Your task to perform on an android device: change the clock display to show seconds Image 0: 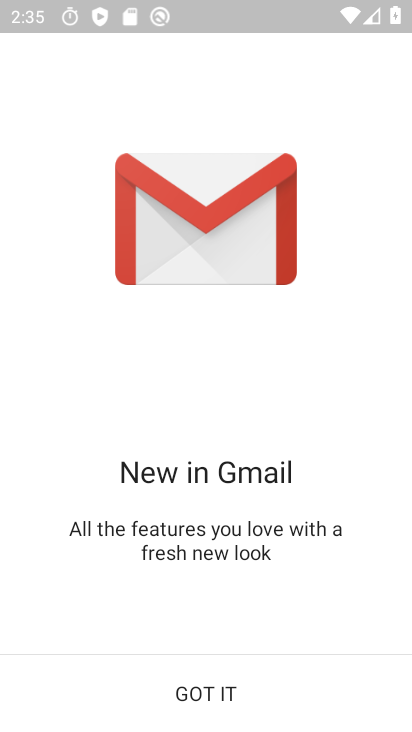
Step 0: press home button
Your task to perform on an android device: change the clock display to show seconds Image 1: 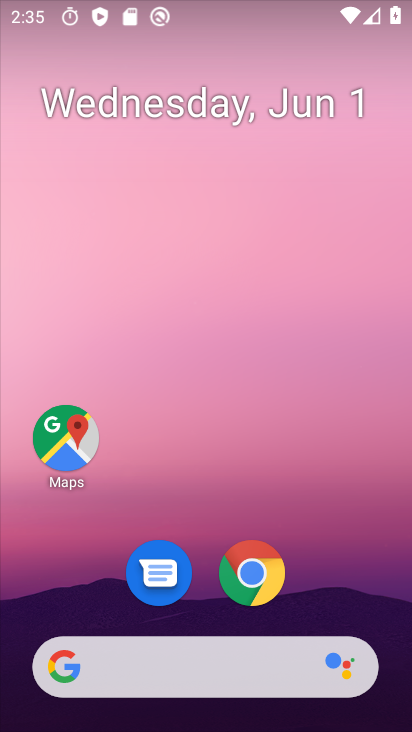
Step 1: drag from (203, 608) to (210, 271)
Your task to perform on an android device: change the clock display to show seconds Image 2: 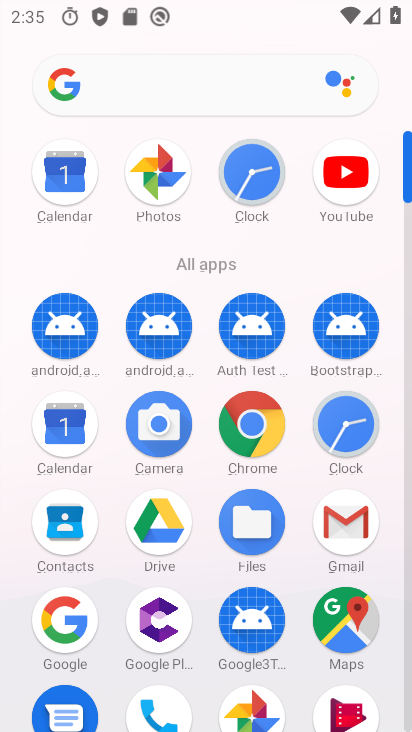
Step 2: drag from (206, 584) to (240, 398)
Your task to perform on an android device: change the clock display to show seconds Image 3: 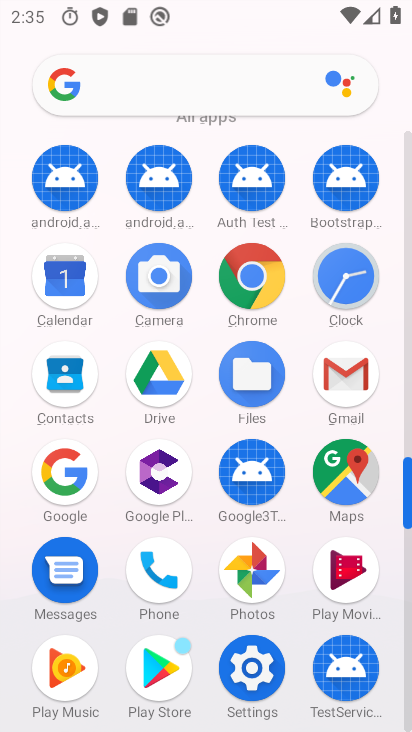
Step 3: click (324, 286)
Your task to perform on an android device: change the clock display to show seconds Image 4: 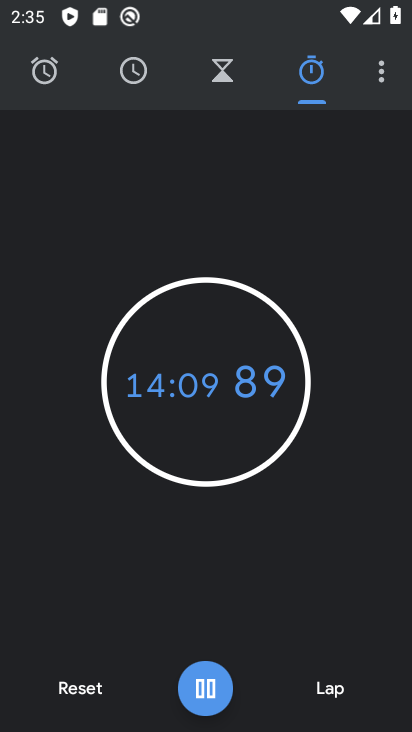
Step 4: click (374, 82)
Your task to perform on an android device: change the clock display to show seconds Image 5: 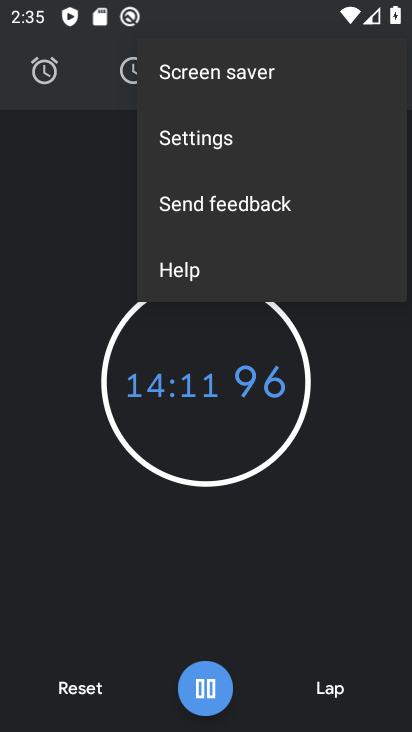
Step 5: click (257, 130)
Your task to perform on an android device: change the clock display to show seconds Image 6: 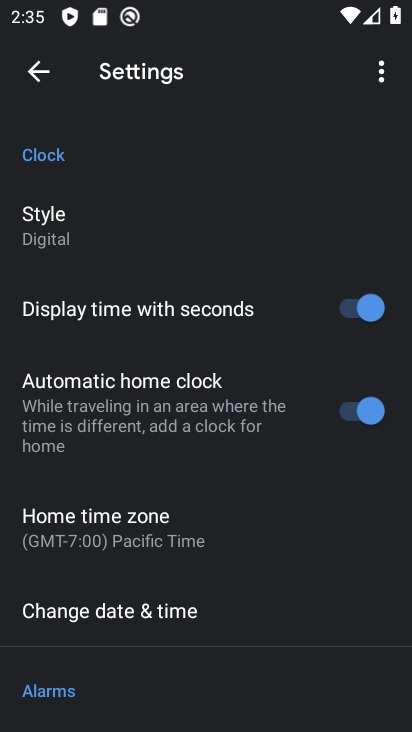
Step 6: task complete